Your task to perform on an android device: Open settings on Google Maps Image 0: 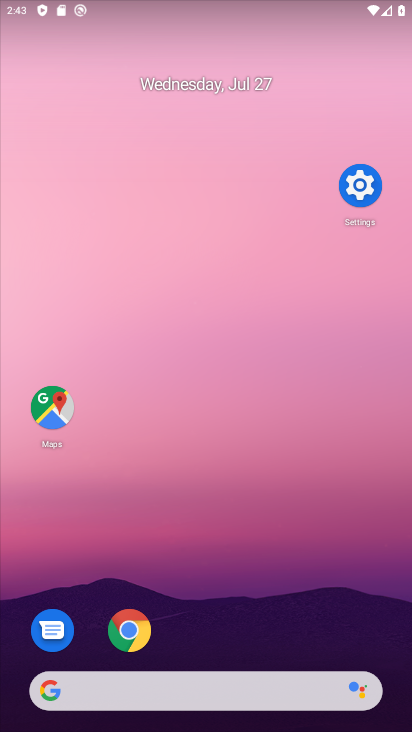
Step 0: press home button
Your task to perform on an android device: Open settings on Google Maps Image 1: 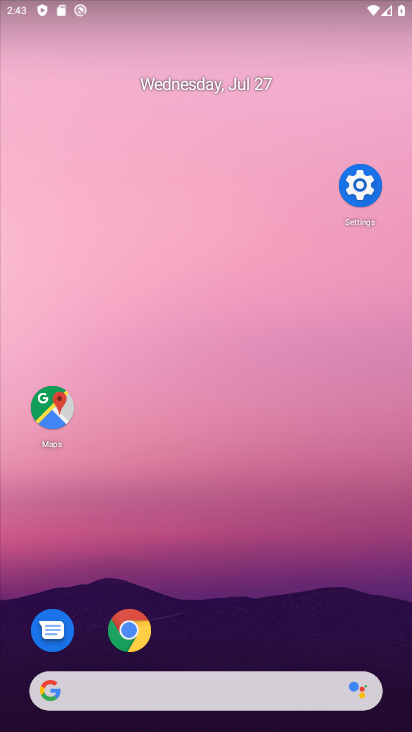
Step 1: drag from (211, 634) to (292, 214)
Your task to perform on an android device: Open settings on Google Maps Image 2: 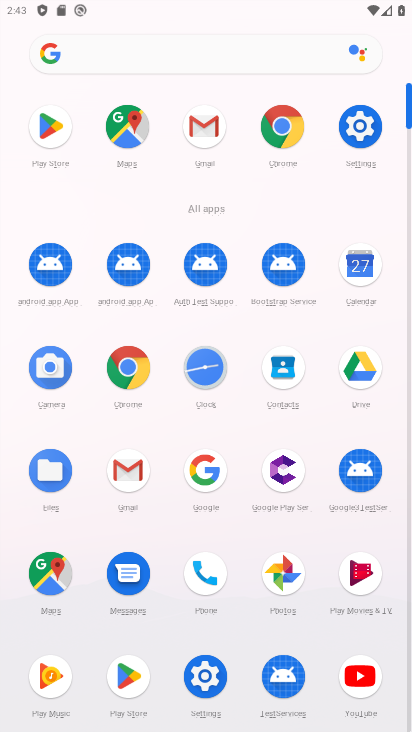
Step 2: click (124, 135)
Your task to perform on an android device: Open settings on Google Maps Image 3: 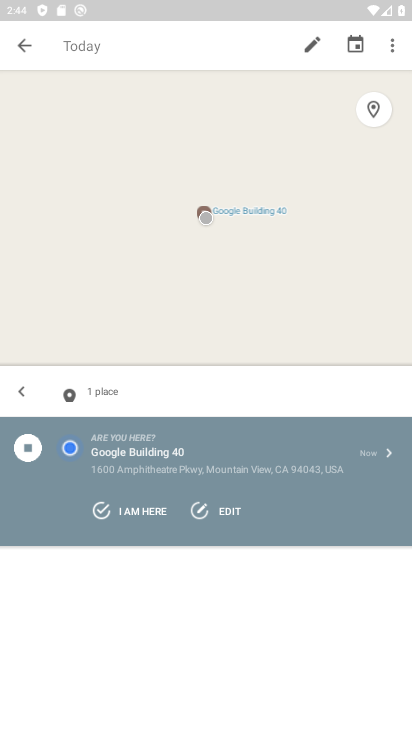
Step 3: click (24, 51)
Your task to perform on an android device: Open settings on Google Maps Image 4: 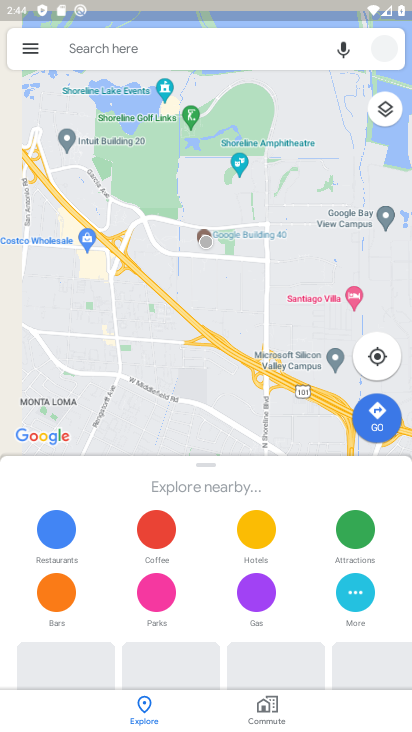
Step 4: click (24, 51)
Your task to perform on an android device: Open settings on Google Maps Image 5: 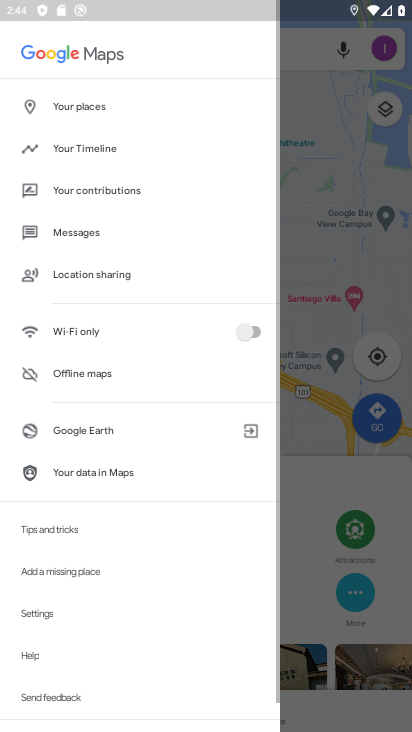
Step 5: click (40, 616)
Your task to perform on an android device: Open settings on Google Maps Image 6: 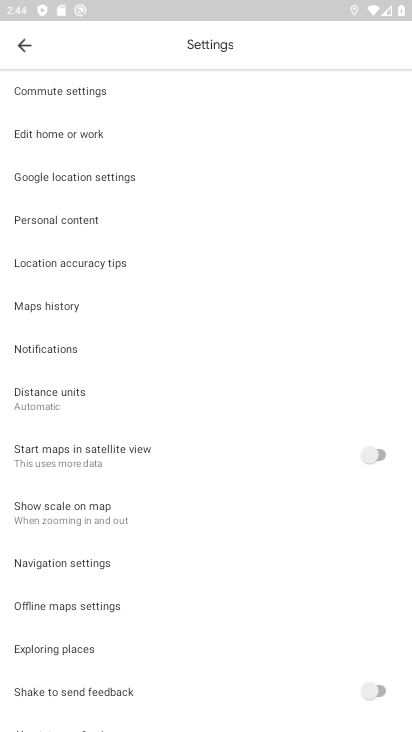
Step 6: task complete